Your task to perform on an android device: Check the settings for the Pandora app Image 0: 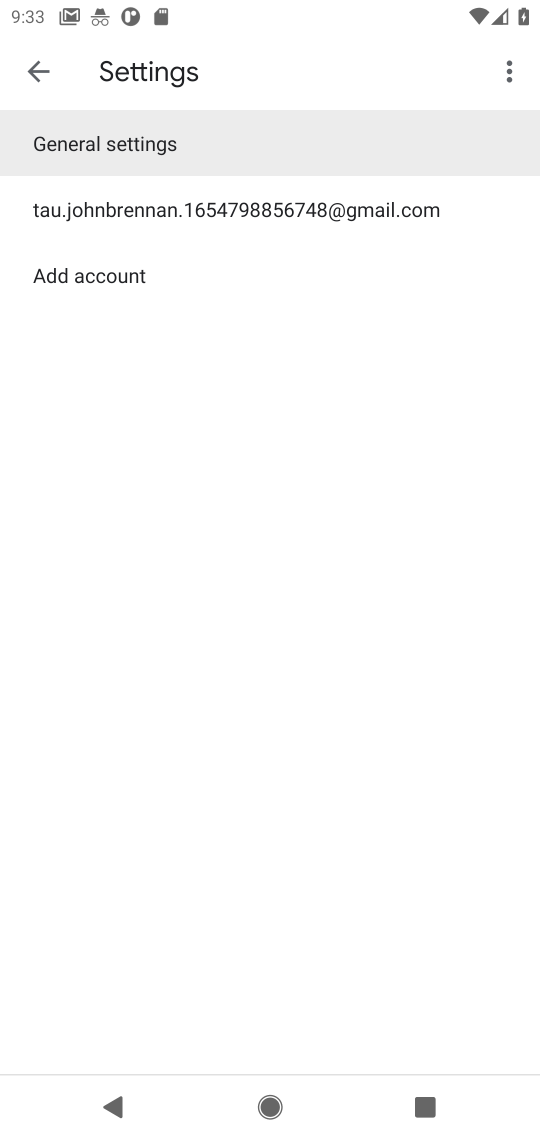
Step 0: press home button
Your task to perform on an android device: Check the settings for the Pandora app Image 1: 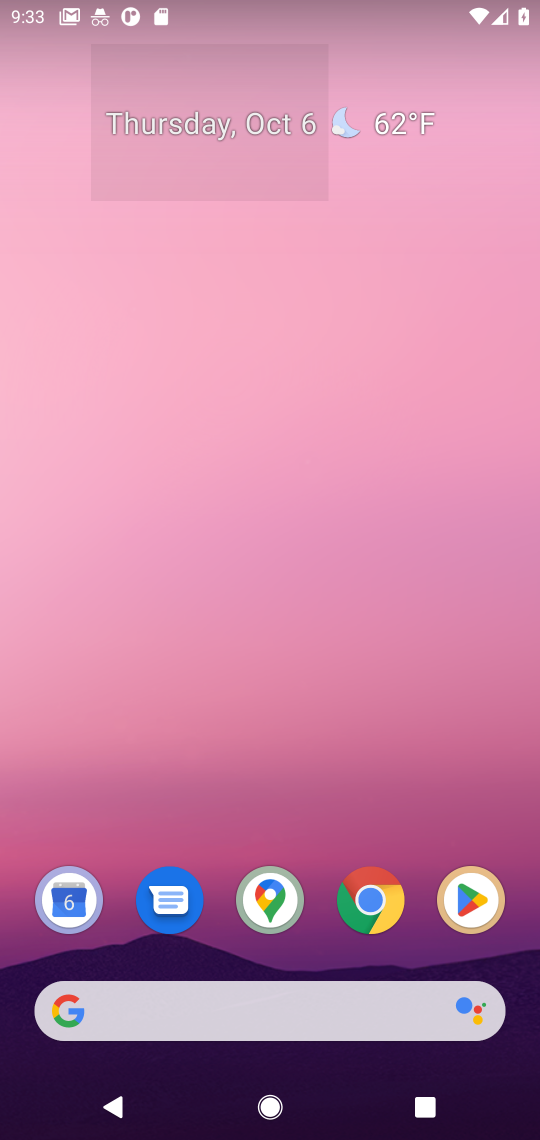
Step 1: drag from (384, 721) to (376, 50)
Your task to perform on an android device: Check the settings for the Pandora app Image 2: 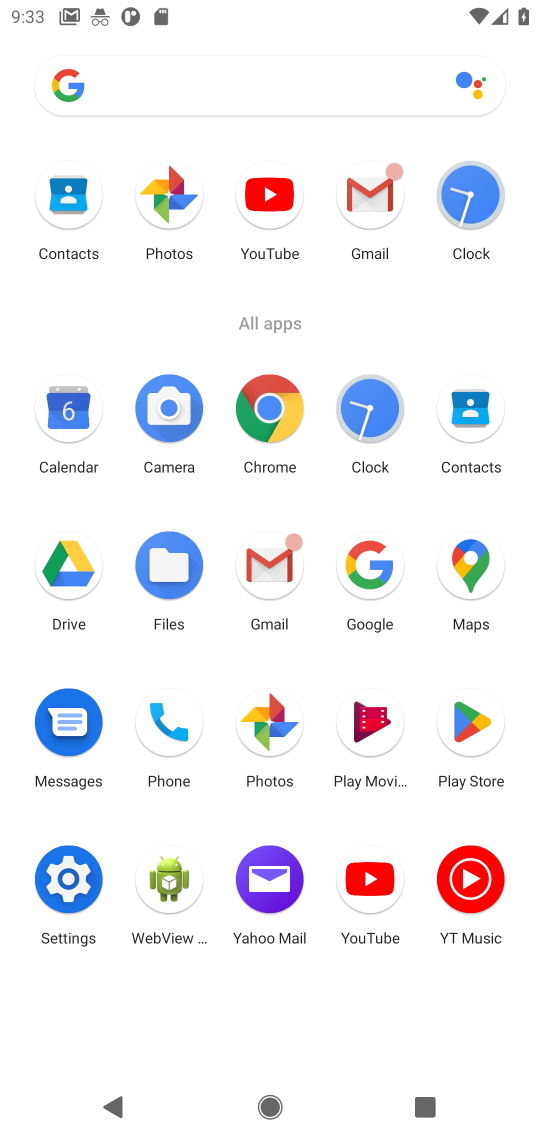
Step 2: click (449, 726)
Your task to perform on an android device: Check the settings for the Pandora app Image 3: 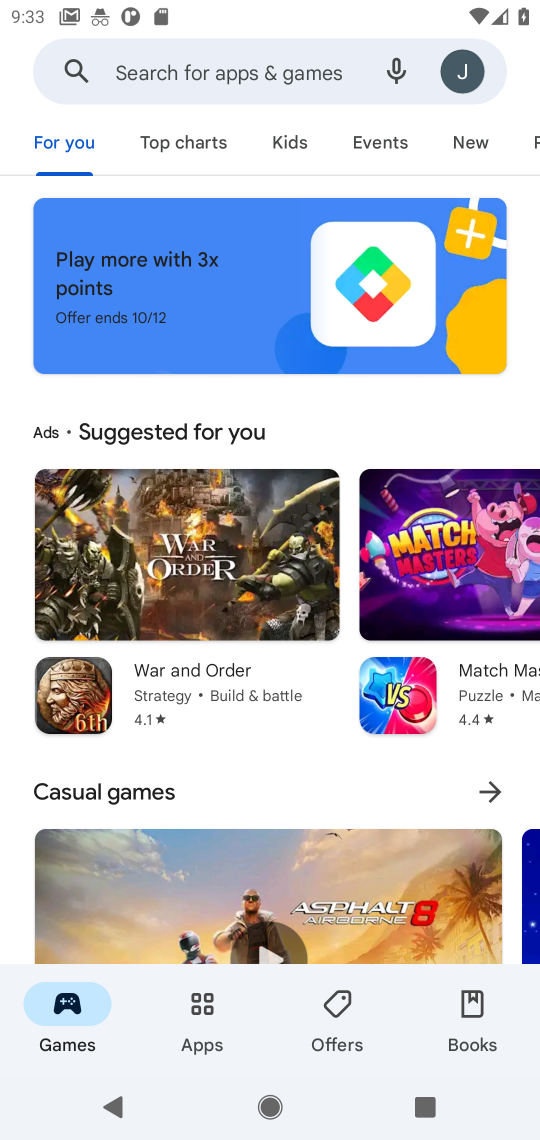
Step 3: click (269, 74)
Your task to perform on an android device: Check the settings for the Pandora app Image 4: 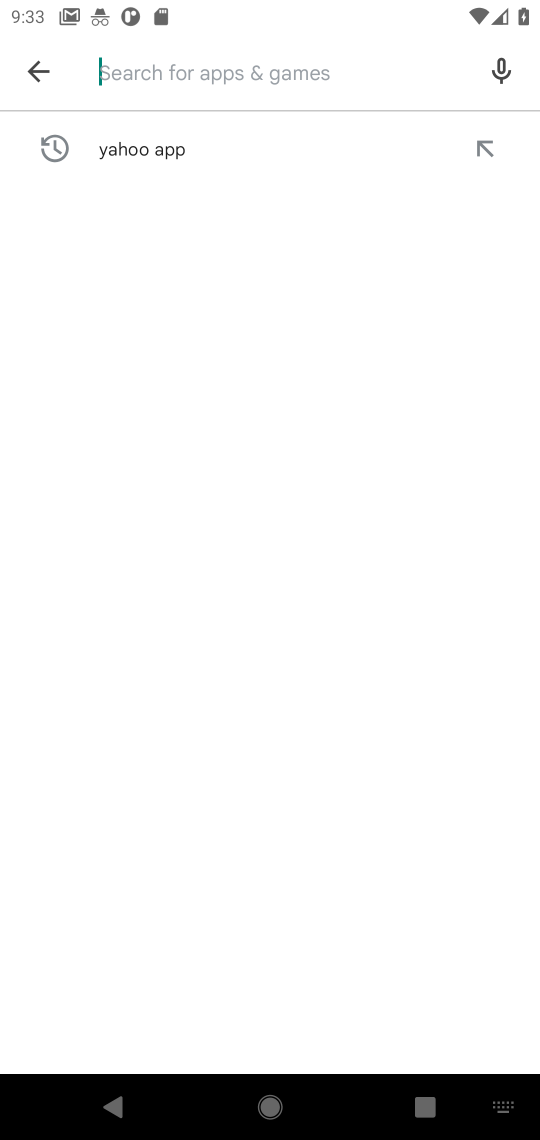
Step 4: type "pandora app"
Your task to perform on an android device: Check the settings for the Pandora app Image 5: 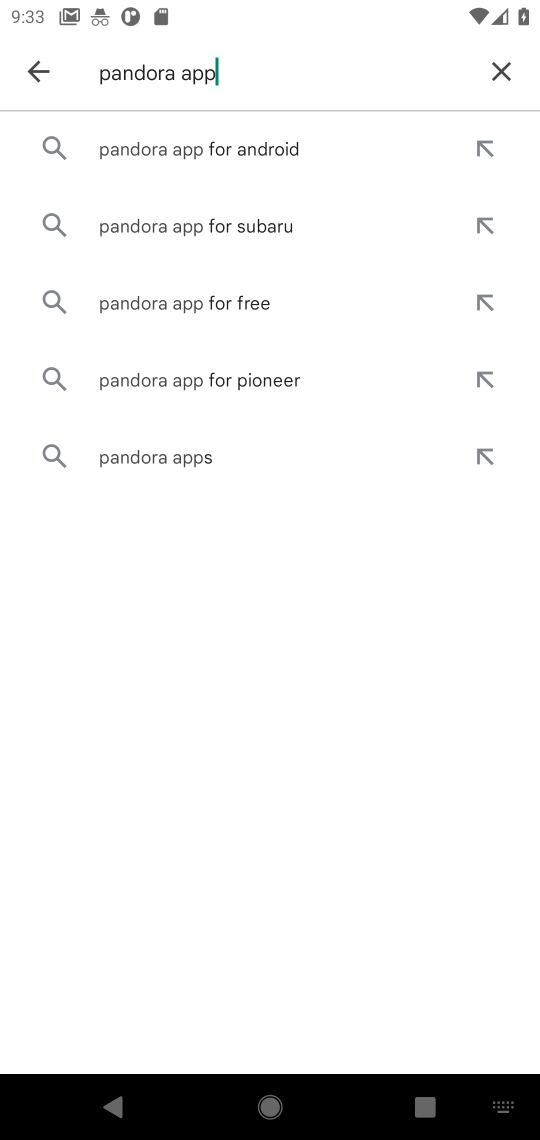
Step 5: press enter
Your task to perform on an android device: Check the settings for the Pandora app Image 6: 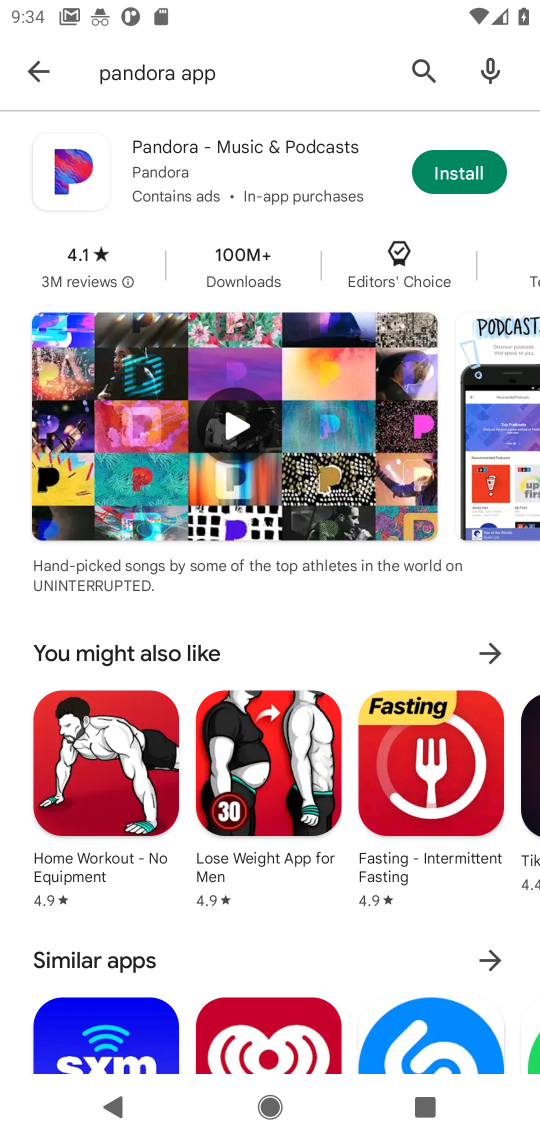
Step 6: task complete